Your task to perform on an android device: Open internet settings Image 0: 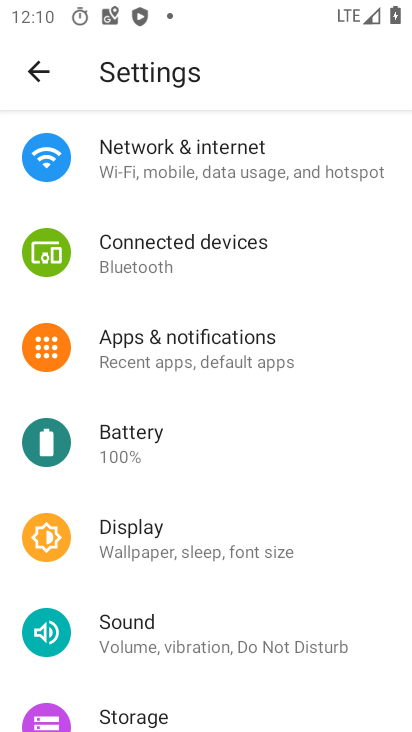
Step 0: press back button
Your task to perform on an android device: Open internet settings Image 1: 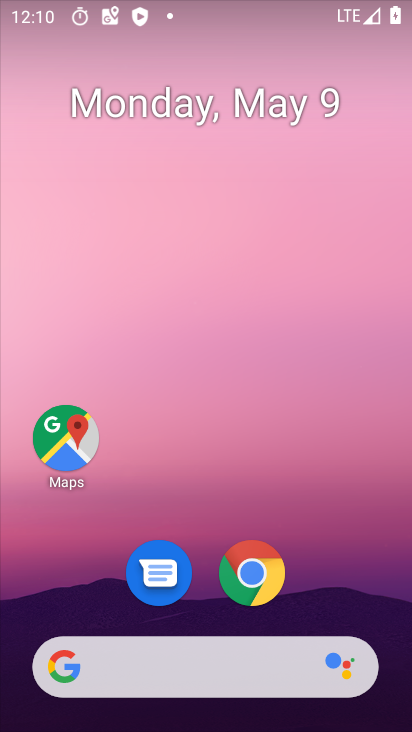
Step 1: drag from (378, 575) to (265, 2)
Your task to perform on an android device: Open internet settings Image 2: 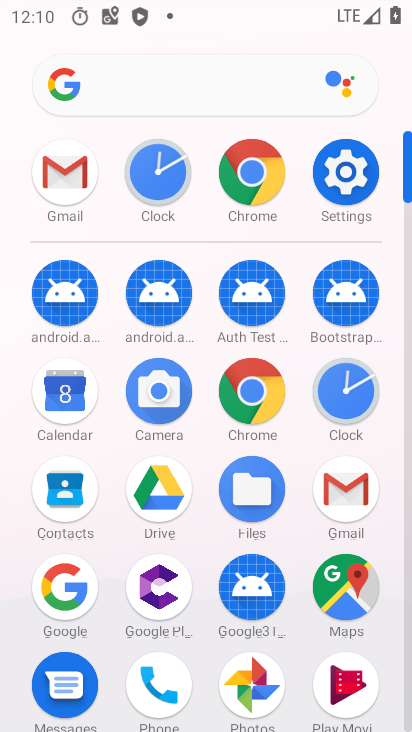
Step 2: click (349, 170)
Your task to perform on an android device: Open internet settings Image 3: 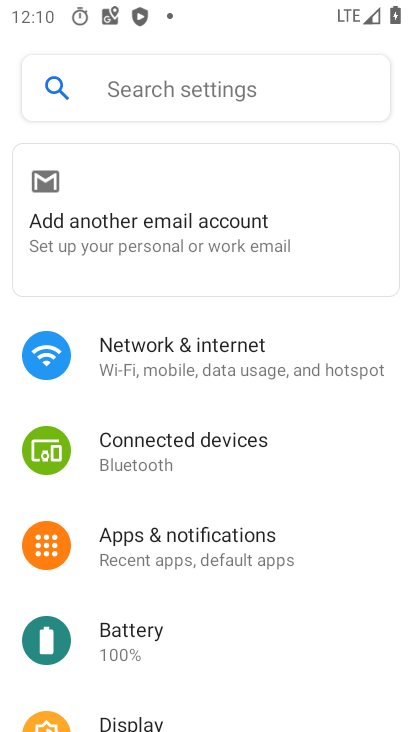
Step 3: click (207, 348)
Your task to perform on an android device: Open internet settings Image 4: 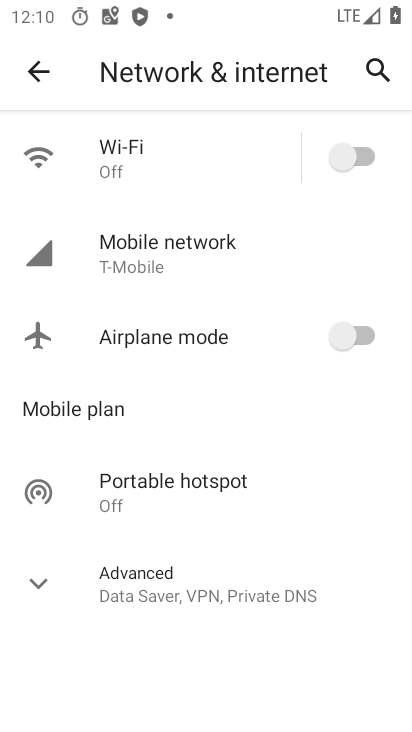
Step 4: click (53, 585)
Your task to perform on an android device: Open internet settings Image 5: 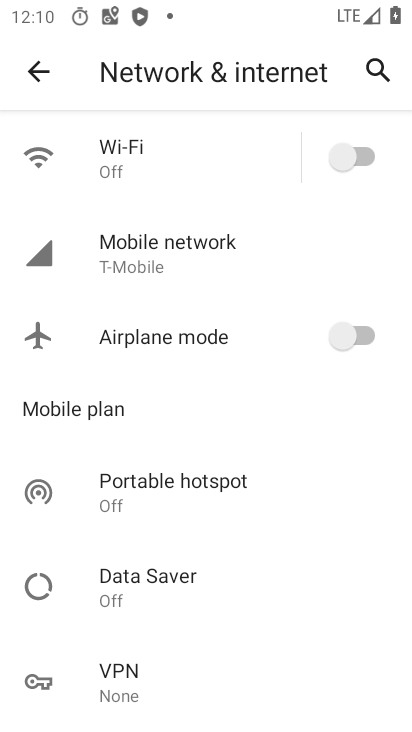
Step 5: task complete